Your task to perform on an android device: What's the weather going to be this weekend? Image 0: 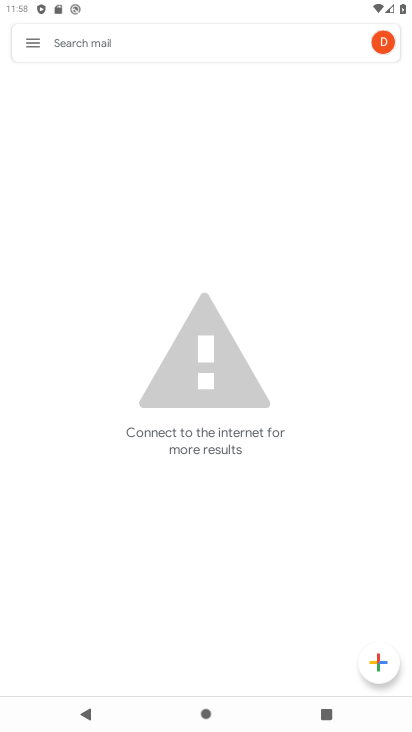
Step 0: press home button
Your task to perform on an android device: What's the weather going to be this weekend? Image 1: 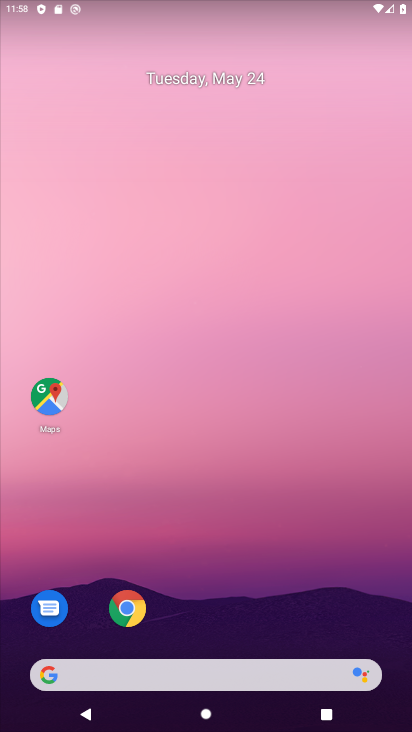
Step 1: drag from (362, 601) to (369, 83)
Your task to perform on an android device: What's the weather going to be this weekend? Image 2: 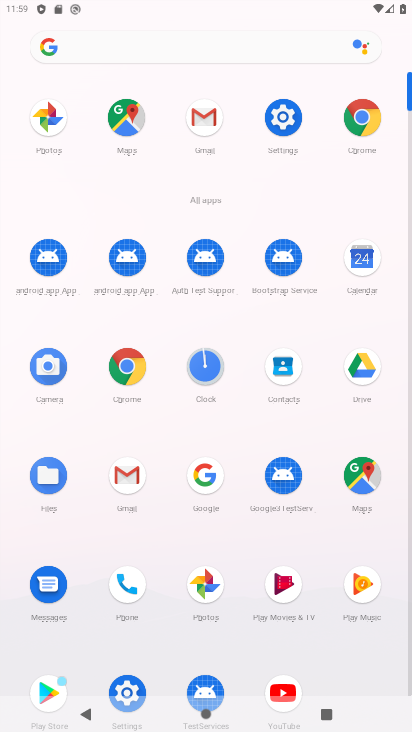
Step 2: click (369, 262)
Your task to perform on an android device: What's the weather going to be this weekend? Image 3: 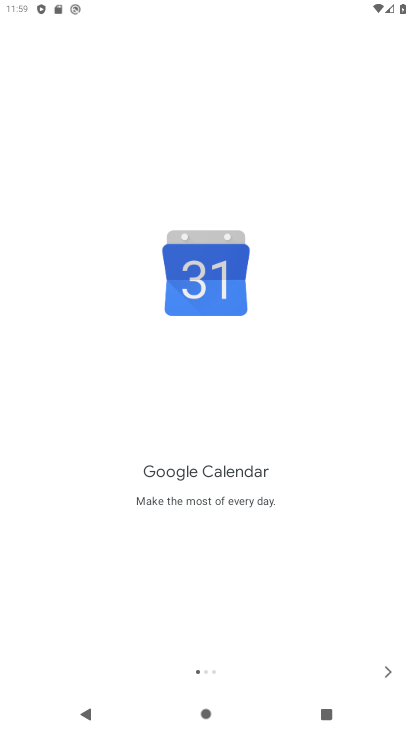
Step 3: click (384, 679)
Your task to perform on an android device: What's the weather going to be this weekend? Image 4: 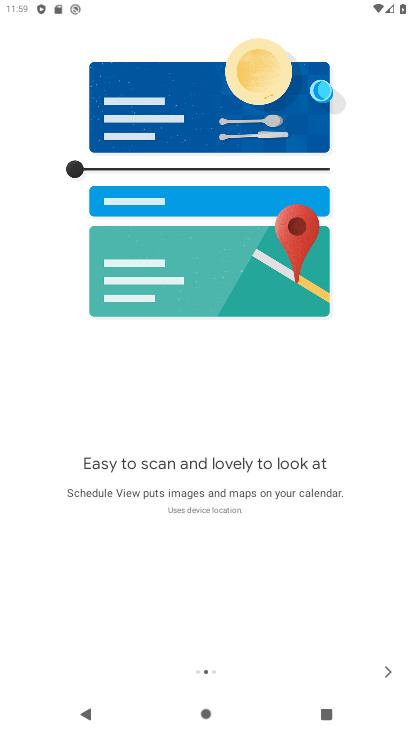
Step 4: click (382, 677)
Your task to perform on an android device: What's the weather going to be this weekend? Image 5: 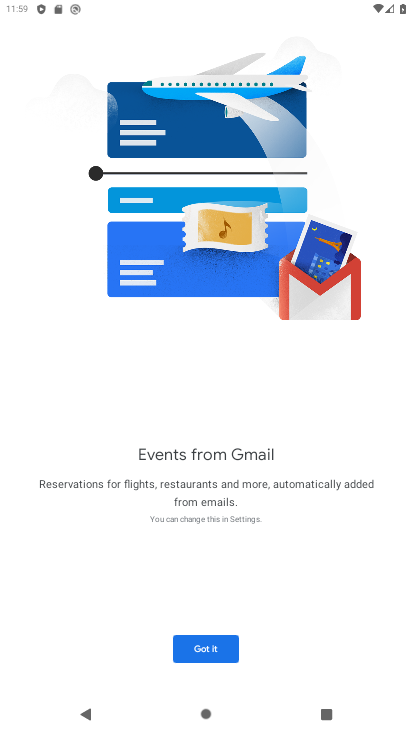
Step 5: click (208, 647)
Your task to perform on an android device: What's the weather going to be this weekend? Image 6: 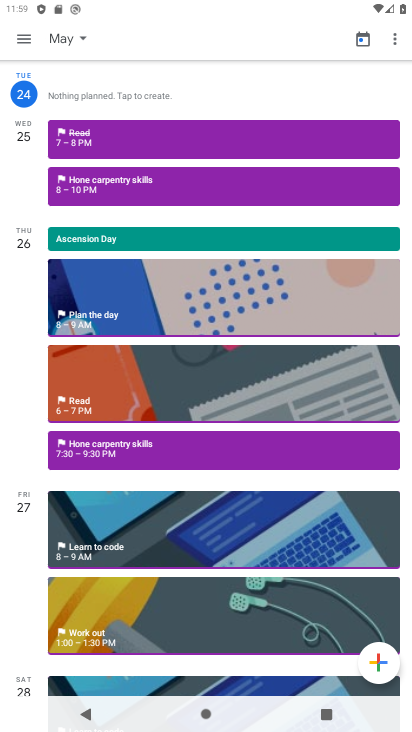
Step 6: click (30, 38)
Your task to perform on an android device: What's the weather going to be this weekend? Image 7: 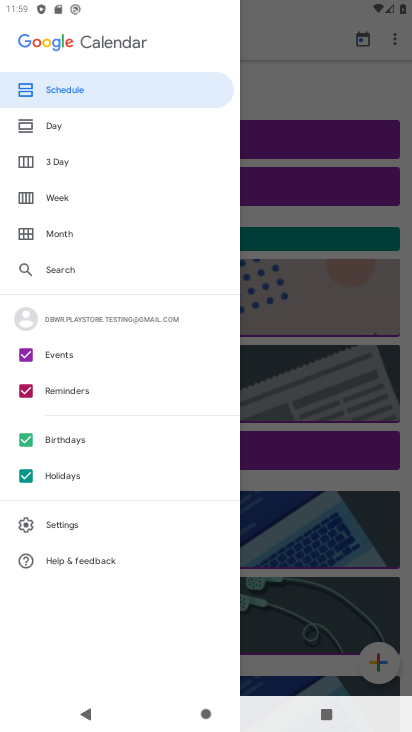
Step 7: press home button
Your task to perform on an android device: What's the weather going to be this weekend? Image 8: 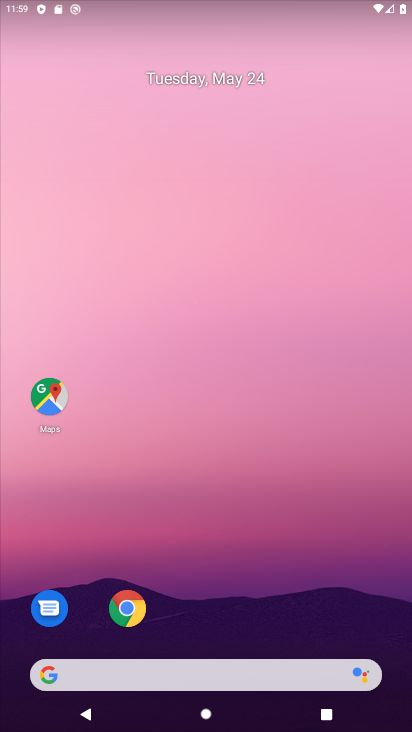
Step 8: click (128, 614)
Your task to perform on an android device: What's the weather going to be this weekend? Image 9: 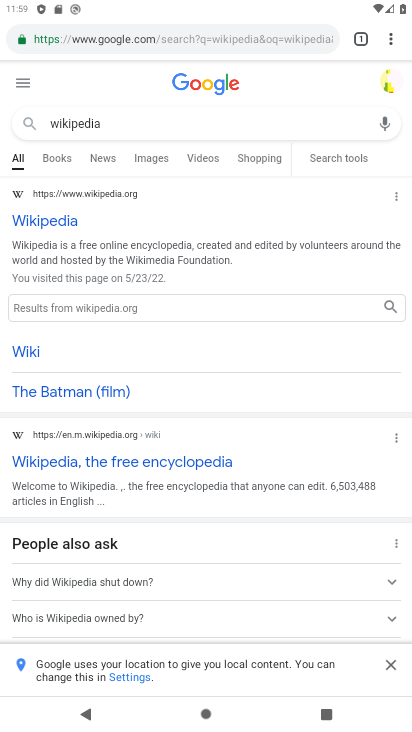
Step 9: click (140, 47)
Your task to perform on an android device: What's the weather going to be this weekend? Image 10: 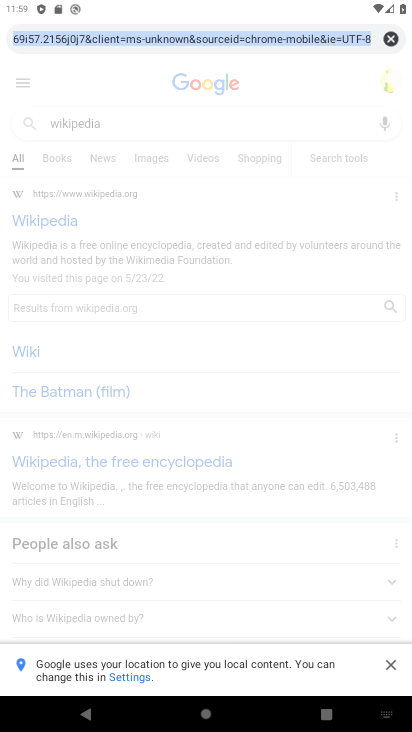
Step 10: click (401, 42)
Your task to perform on an android device: What's the weather going to be this weekend? Image 11: 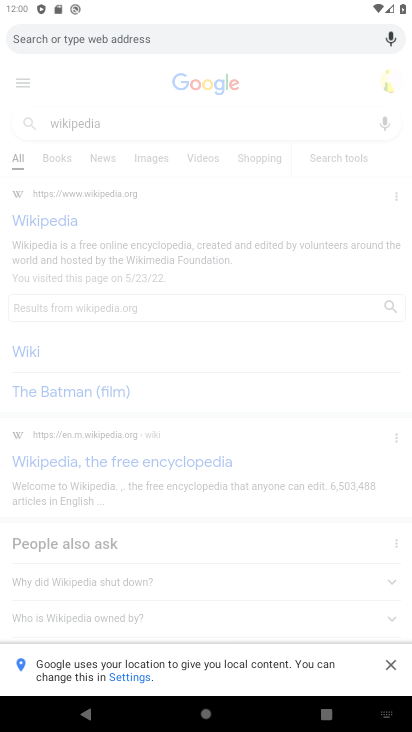
Step 11: type "what's the weather to be this weekend "
Your task to perform on an android device: What's the weather going to be this weekend? Image 12: 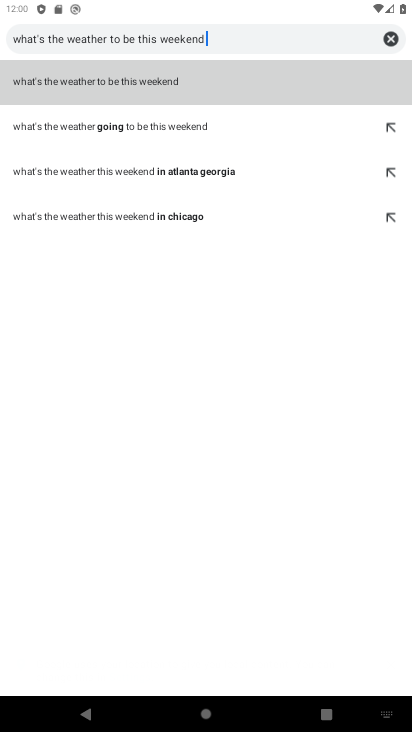
Step 12: click (88, 95)
Your task to perform on an android device: What's the weather going to be this weekend? Image 13: 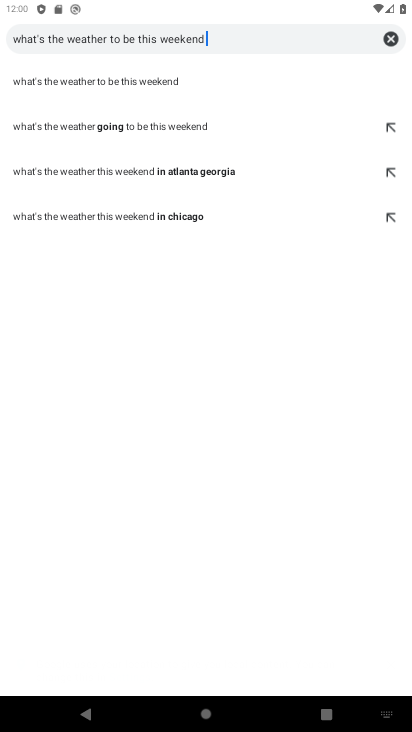
Step 13: click (91, 82)
Your task to perform on an android device: What's the weather going to be this weekend? Image 14: 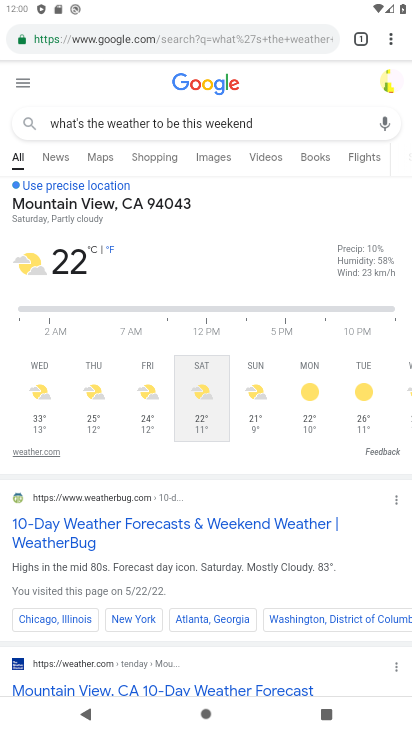
Step 14: task complete